Your task to perform on an android device: Toggle the flashlight Image 0: 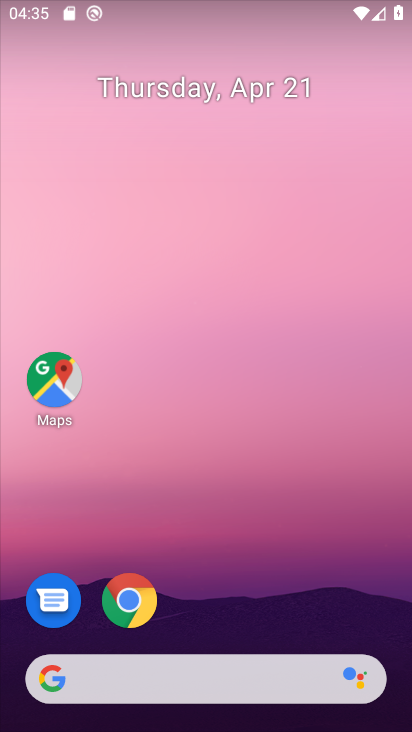
Step 0: drag from (163, 4) to (172, 424)
Your task to perform on an android device: Toggle the flashlight Image 1: 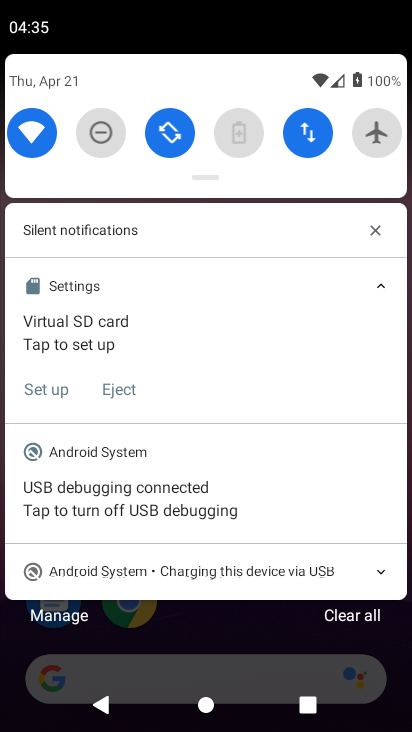
Step 1: task complete